Your task to perform on an android device: star an email in the gmail app Image 0: 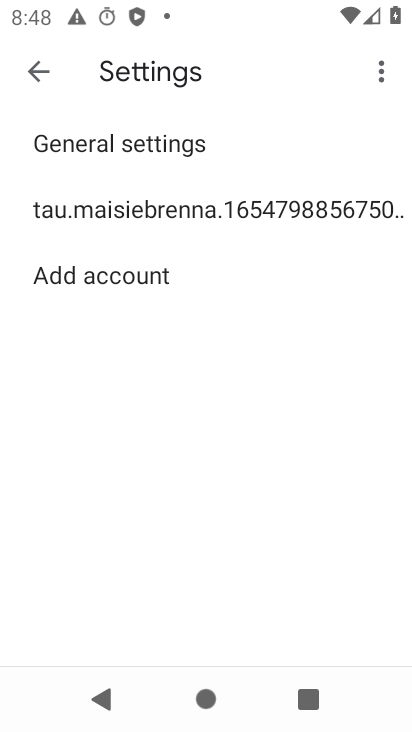
Step 0: press home button
Your task to perform on an android device: star an email in the gmail app Image 1: 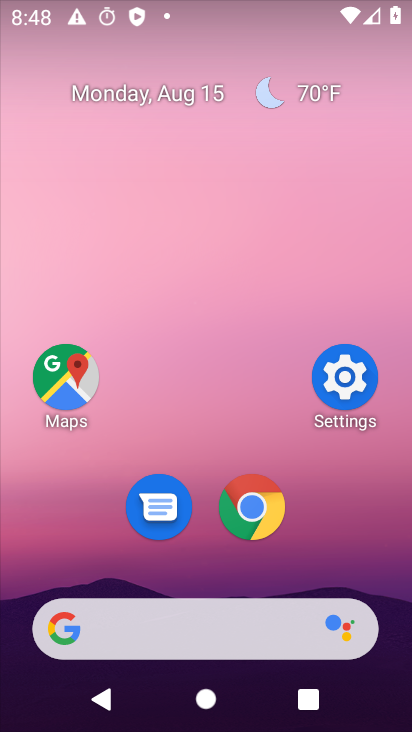
Step 1: drag from (182, 633) to (320, 145)
Your task to perform on an android device: star an email in the gmail app Image 2: 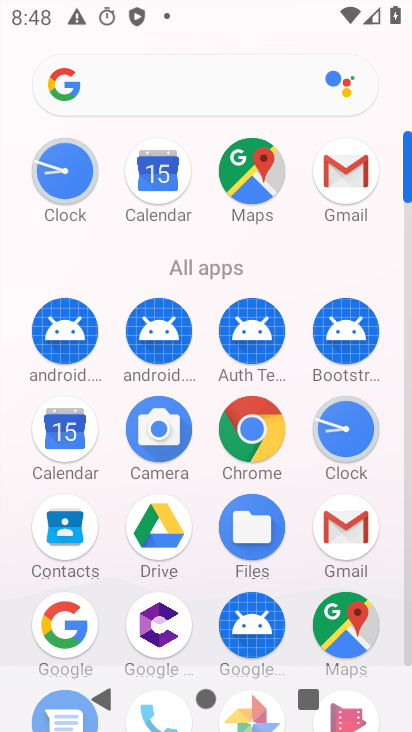
Step 2: click (351, 180)
Your task to perform on an android device: star an email in the gmail app Image 3: 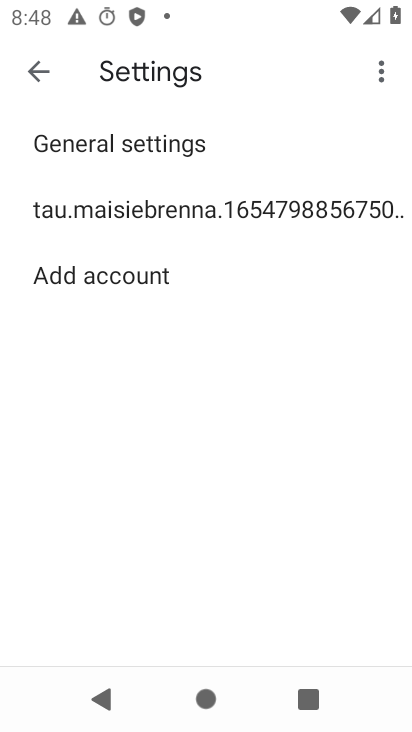
Step 3: click (38, 71)
Your task to perform on an android device: star an email in the gmail app Image 4: 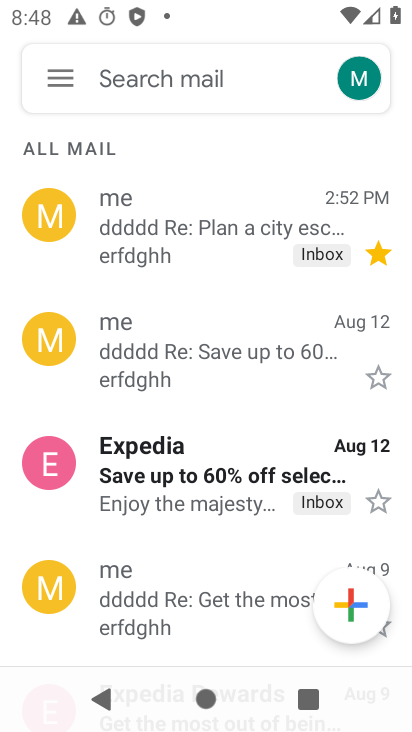
Step 4: click (60, 350)
Your task to perform on an android device: star an email in the gmail app Image 5: 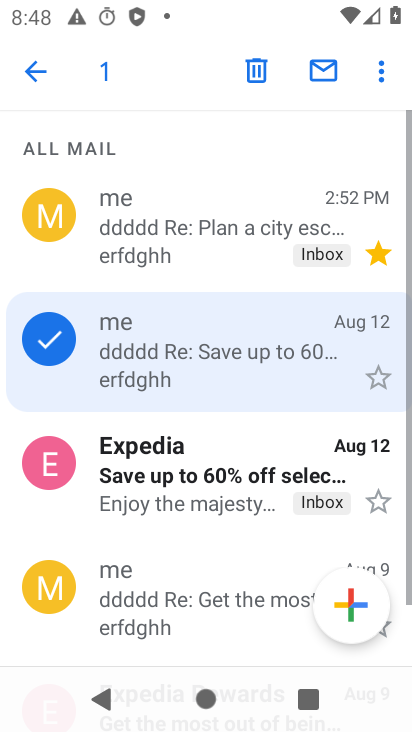
Step 5: click (379, 76)
Your task to perform on an android device: star an email in the gmail app Image 6: 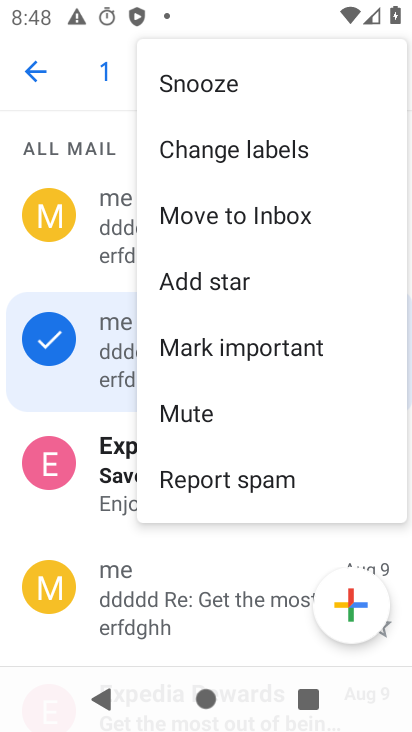
Step 6: click (216, 289)
Your task to perform on an android device: star an email in the gmail app Image 7: 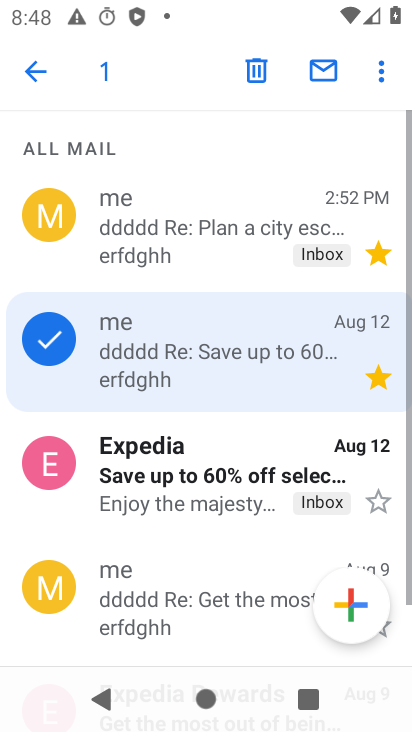
Step 7: click (54, 353)
Your task to perform on an android device: star an email in the gmail app Image 8: 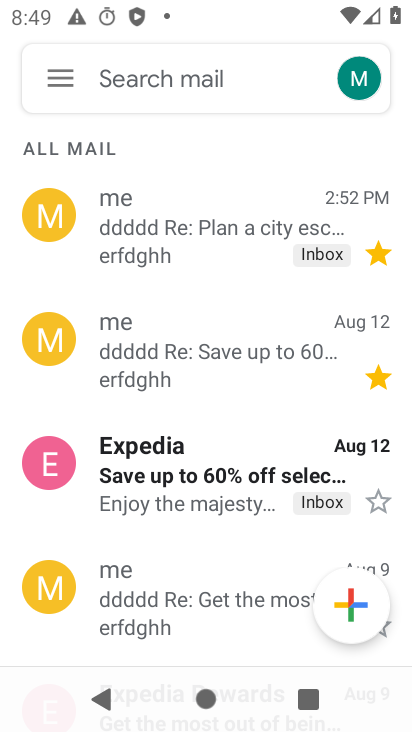
Step 8: task complete